Your task to perform on an android device: Go to Android settings Image 0: 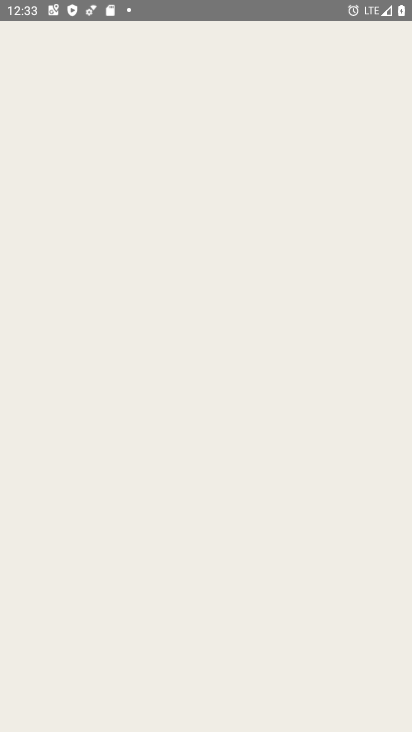
Step 0: press home button
Your task to perform on an android device: Go to Android settings Image 1: 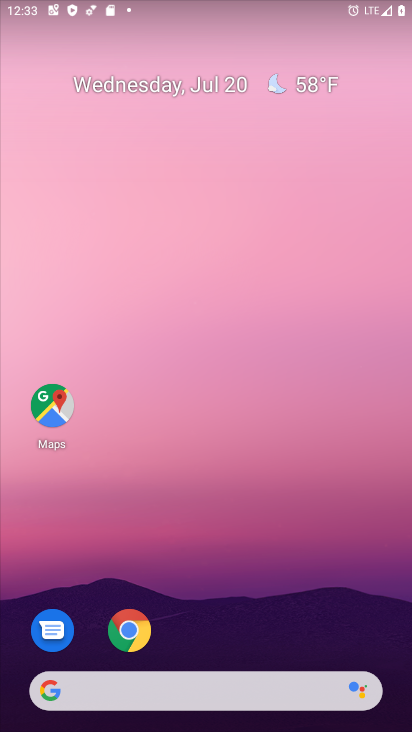
Step 1: drag from (262, 633) to (252, 136)
Your task to perform on an android device: Go to Android settings Image 2: 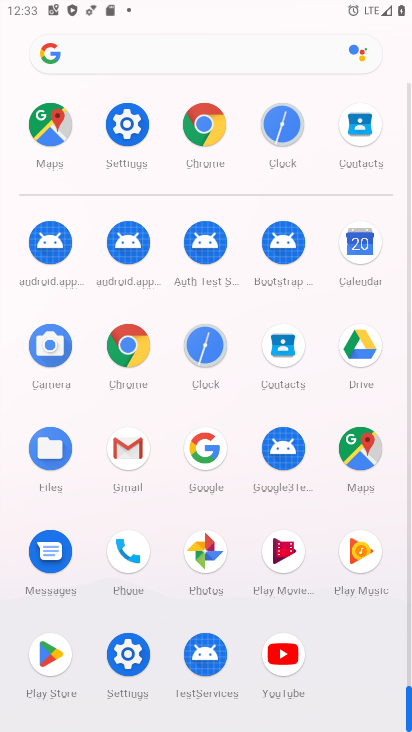
Step 2: click (124, 674)
Your task to perform on an android device: Go to Android settings Image 3: 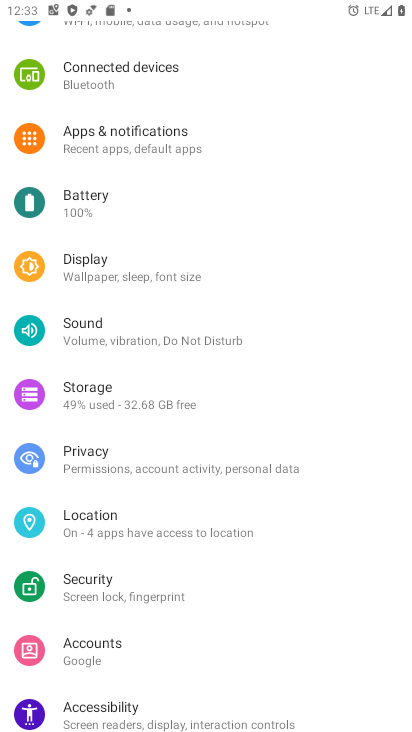
Step 3: drag from (206, 603) to (229, 166)
Your task to perform on an android device: Go to Android settings Image 4: 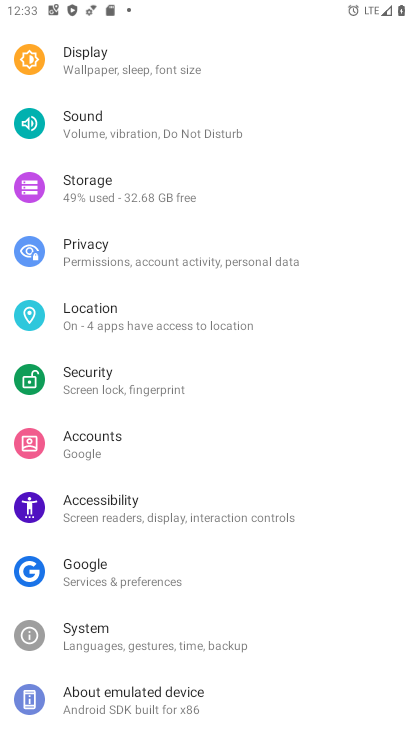
Step 4: drag from (178, 541) to (189, 328)
Your task to perform on an android device: Go to Android settings Image 5: 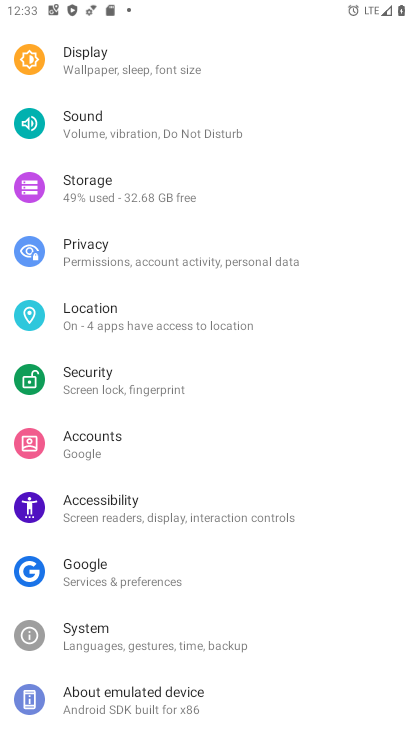
Step 5: click (165, 704)
Your task to perform on an android device: Go to Android settings Image 6: 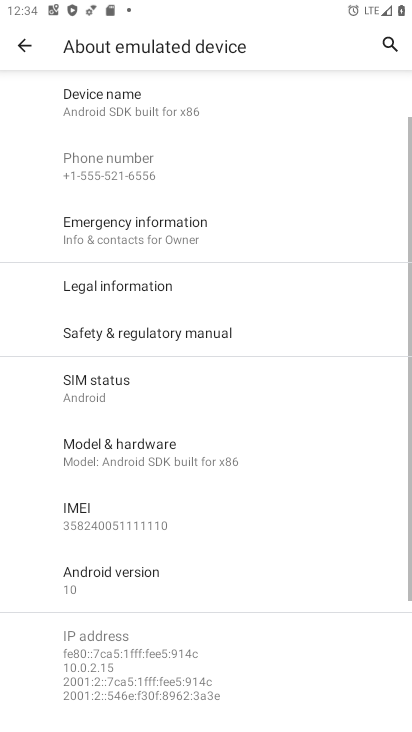
Step 6: click (150, 602)
Your task to perform on an android device: Go to Android settings Image 7: 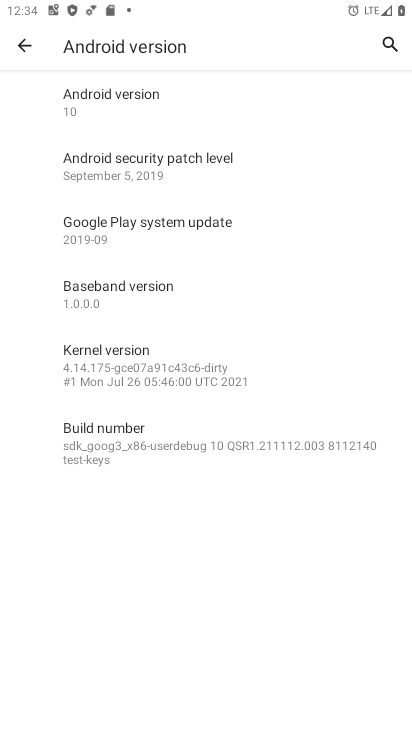
Step 7: task complete